Your task to perform on an android device: Open internet settings Image 0: 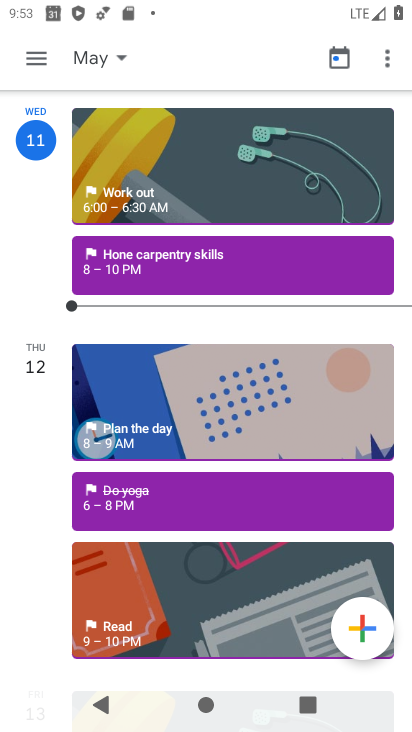
Step 0: press home button
Your task to perform on an android device: Open internet settings Image 1: 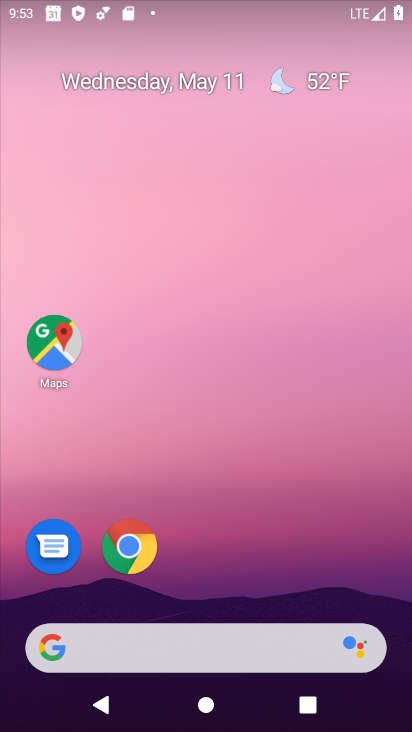
Step 1: drag from (196, 625) to (157, 92)
Your task to perform on an android device: Open internet settings Image 2: 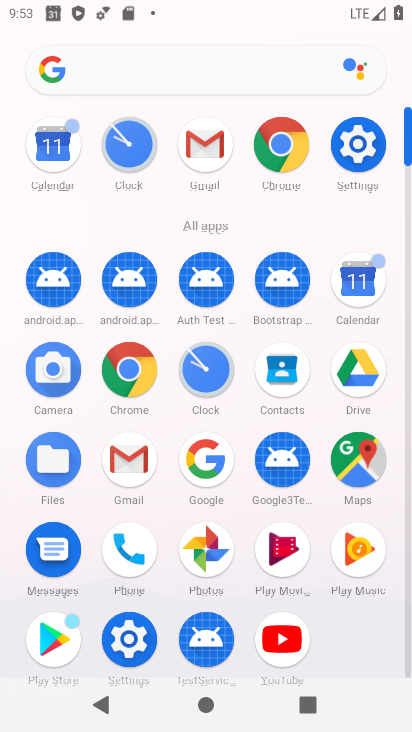
Step 2: click (365, 159)
Your task to perform on an android device: Open internet settings Image 3: 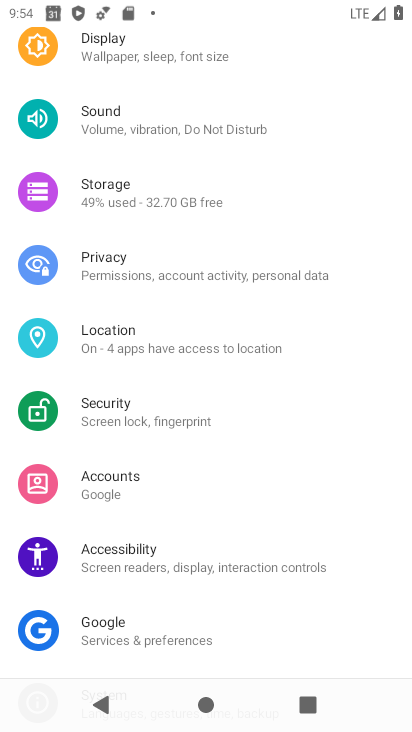
Step 3: drag from (157, 149) to (179, 557)
Your task to perform on an android device: Open internet settings Image 4: 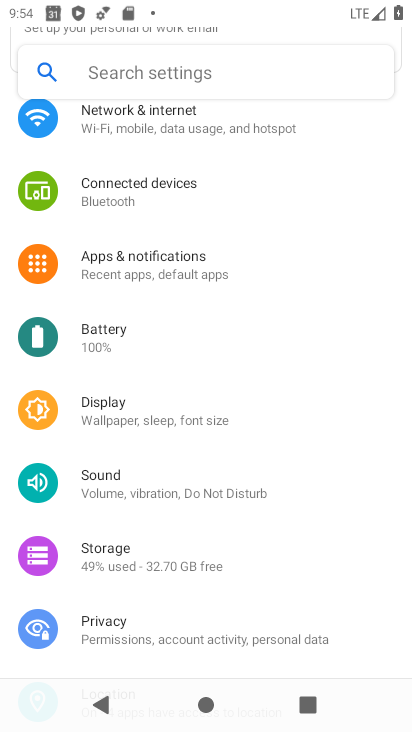
Step 4: click (125, 120)
Your task to perform on an android device: Open internet settings Image 5: 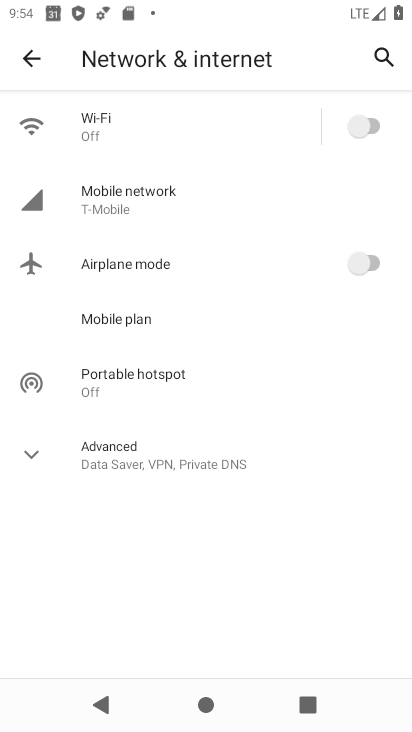
Step 5: task complete